Your task to perform on an android device: turn on translation in the chrome app Image 0: 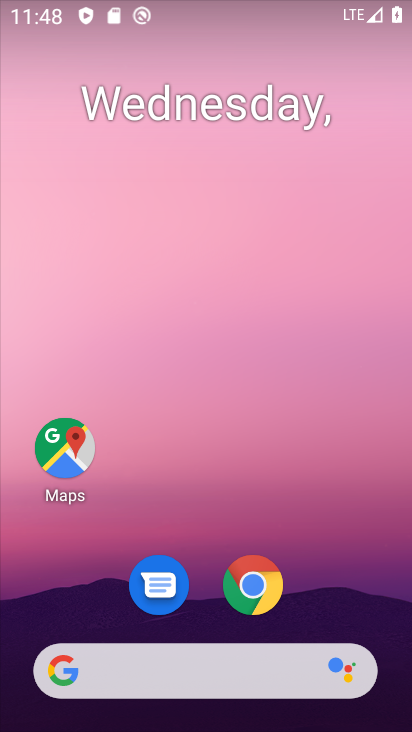
Step 0: click (268, 573)
Your task to perform on an android device: turn on translation in the chrome app Image 1: 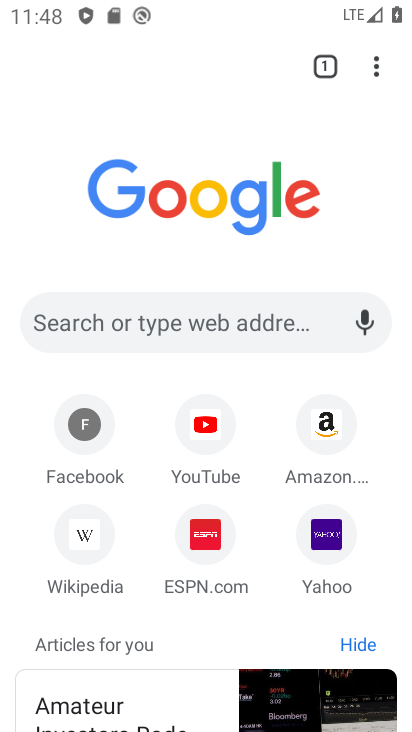
Step 1: click (377, 71)
Your task to perform on an android device: turn on translation in the chrome app Image 2: 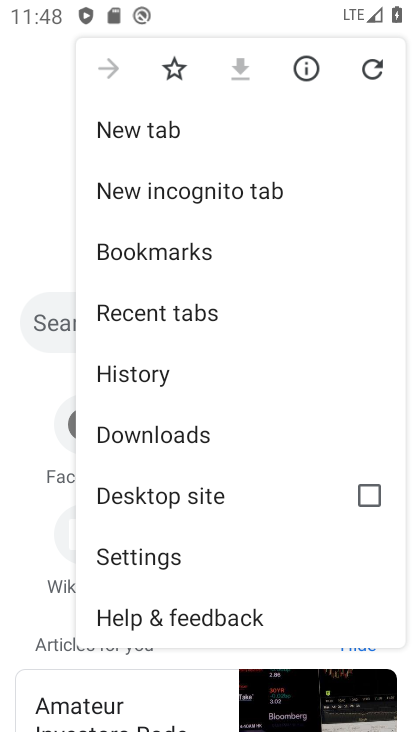
Step 2: drag from (281, 459) to (302, 223)
Your task to perform on an android device: turn on translation in the chrome app Image 3: 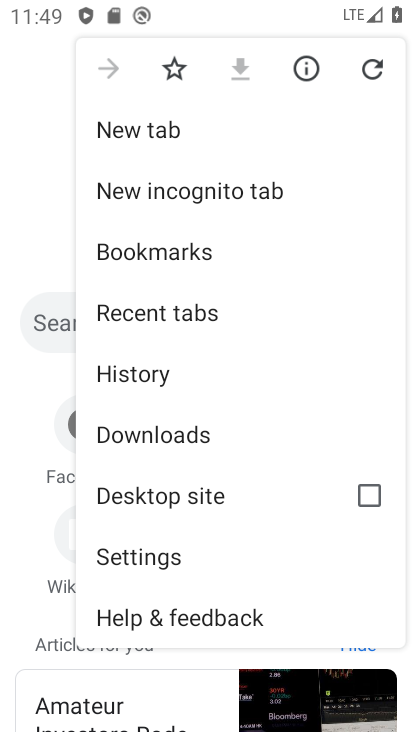
Step 3: drag from (207, 469) to (197, 313)
Your task to perform on an android device: turn on translation in the chrome app Image 4: 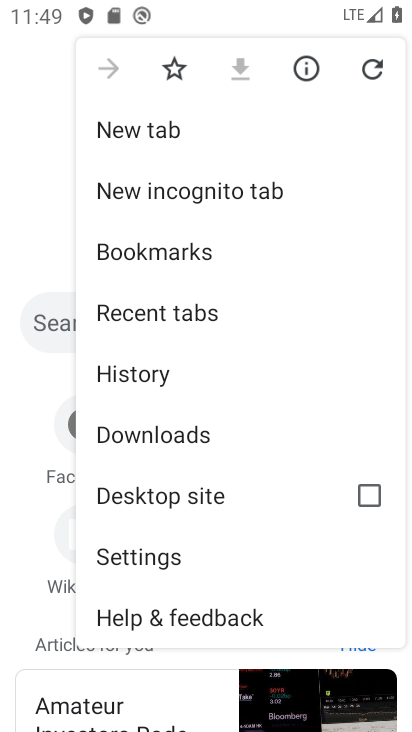
Step 4: click (158, 553)
Your task to perform on an android device: turn on translation in the chrome app Image 5: 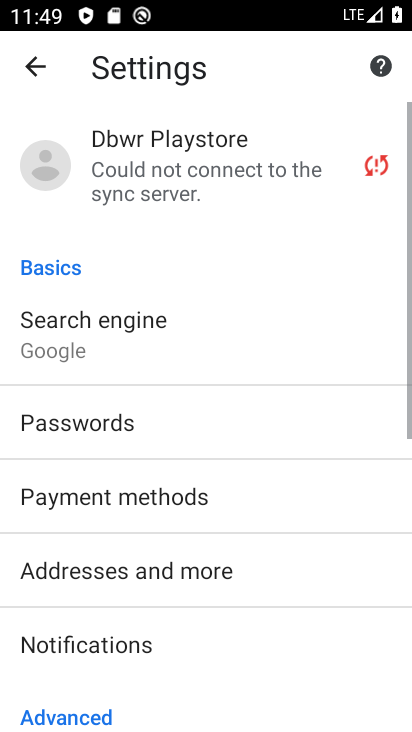
Step 5: drag from (321, 600) to (334, 144)
Your task to perform on an android device: turn on translation in the chrome app Image 6: 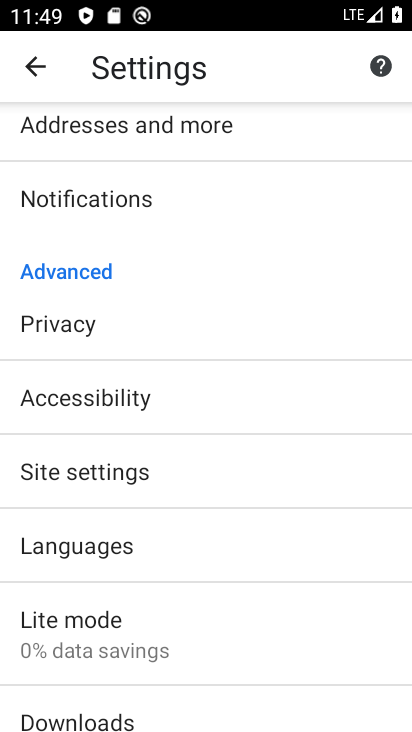
Step 6: click (229, 539)
Your task to perform on an android device: turn on translation in the chrome app Image 7: 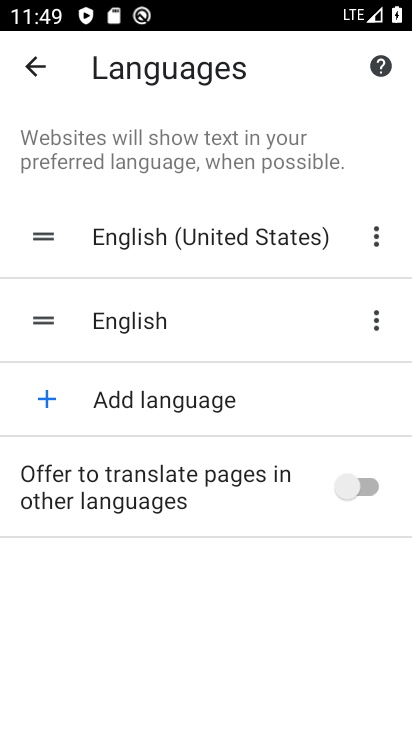
Step 7: click (363, 485)
Your task to perform on an android device: turn on translation in the chrome app Image 8: 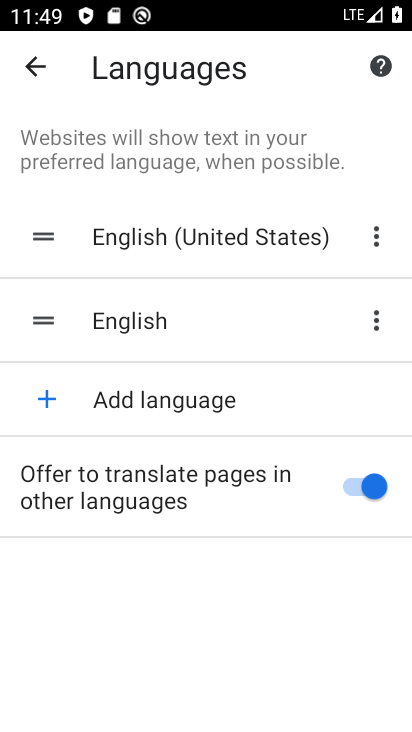
Step 8: task complete